Your task to perform on an android device: Open display settings Image 0: 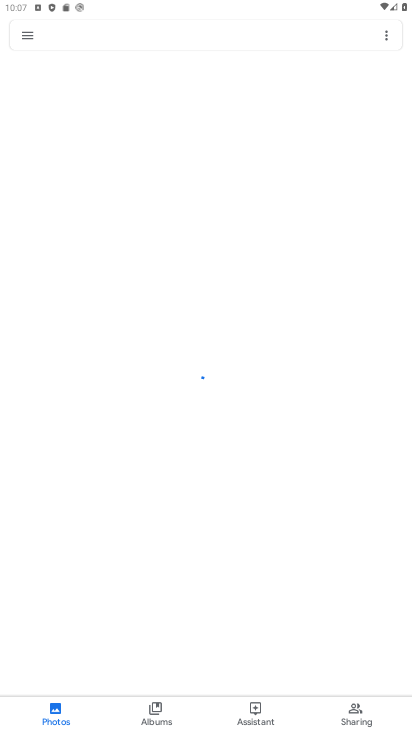
Step 0: press home button
Your task to perform on an android device: Open display settings Image 1: 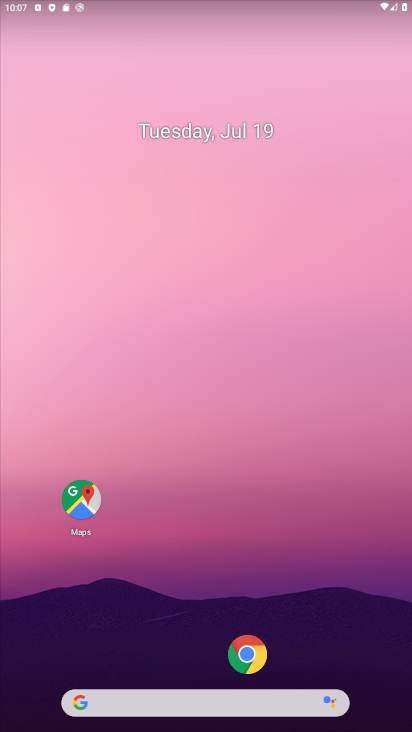
Step 1: drag from (206, 657) to (176, 55)
Your task to perform on an android device: Open display settings Image 2: 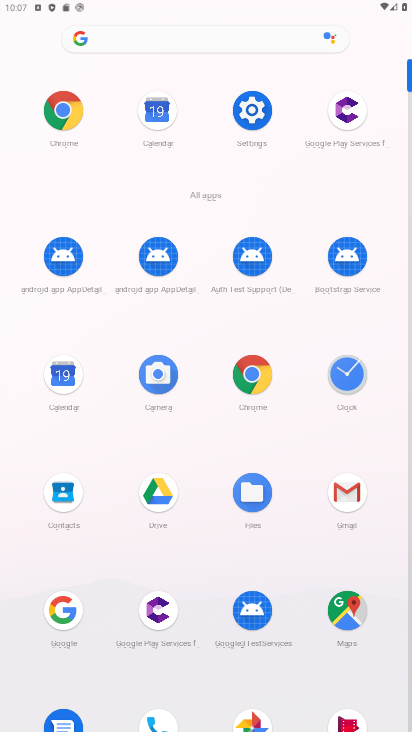
Step 2: click (241, 106)
Your task to perform on an android device: Open display settings Image 3: 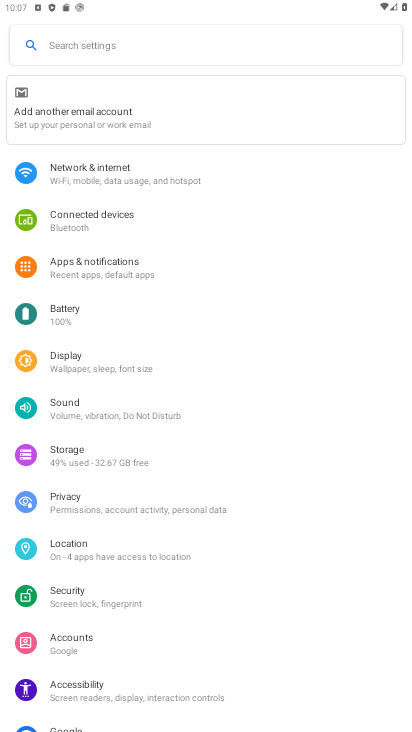
Step 3: click (76, 354)
Your task to perform on an android device: Open display settings Image 4: 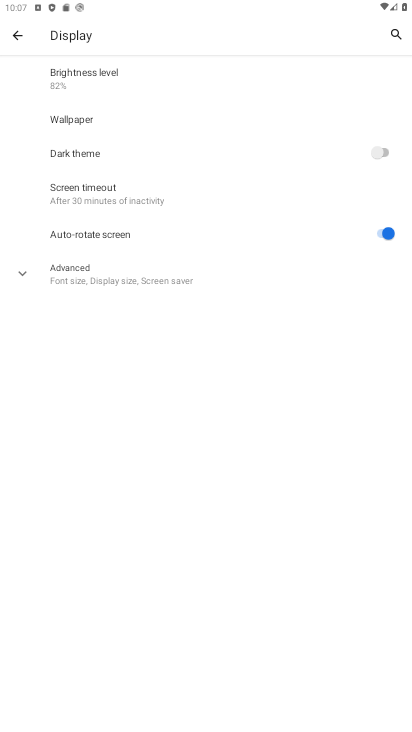
Step 4: task complete